Your task to perform on an android device: turn off data saver in the chrome app Image 0: 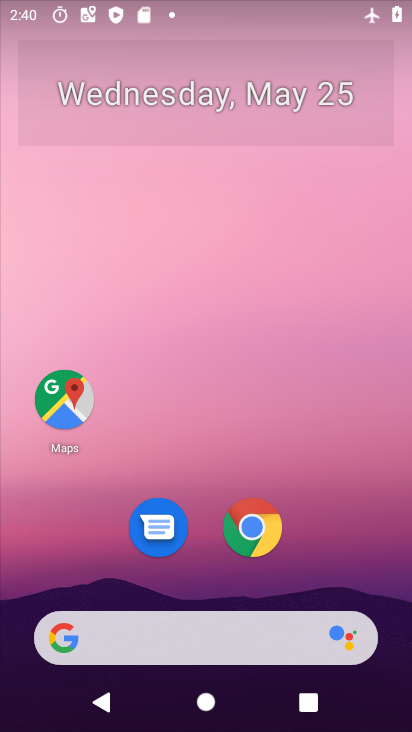
Step 0: drag from (202, 595) to (308, 238)
Your task to perform on an android device: turn off data saver in the chrome app Image 1: 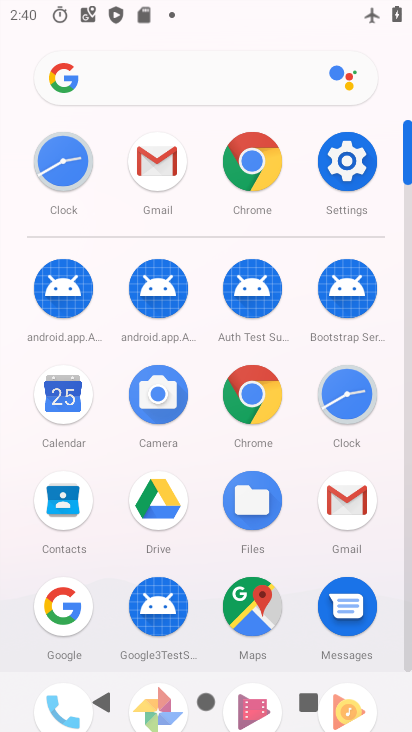
Step 1: click (249, 393)
Your task to perform on an android device: turn off data saver in the chrome app Image 2: 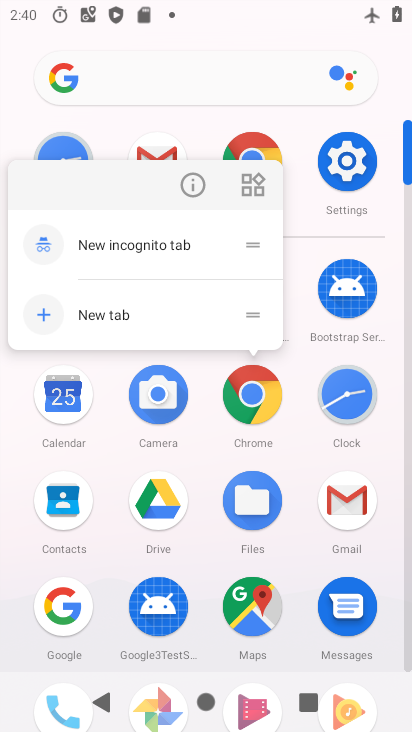
Step 2: click (193, 180)
Your task to perform on an android device: turn off data saver in the chrome app Image 3: 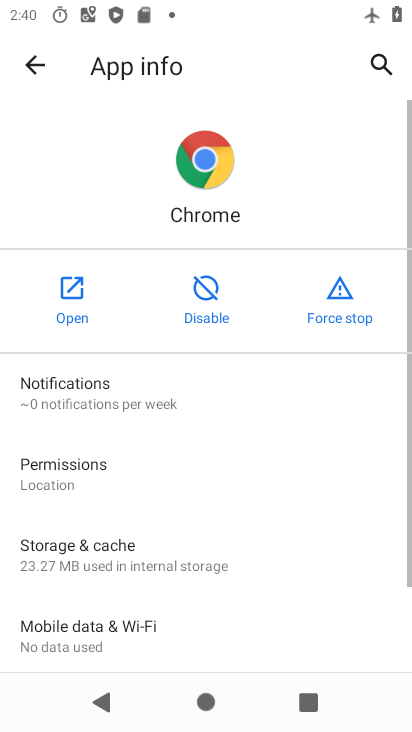
Step 3: click (65, 296)
Your task to perform on an android device: turn off data saver in the chrome app Image 4: 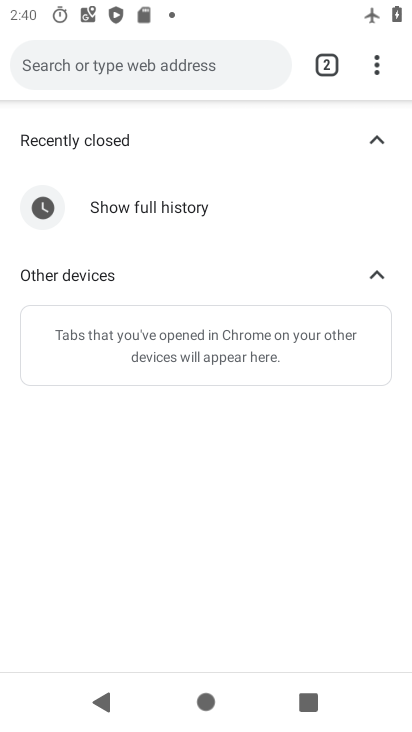
Step 4: click (376, 73)
Your task to perform on an android device: turn off data saver in the chrome app Image 5: 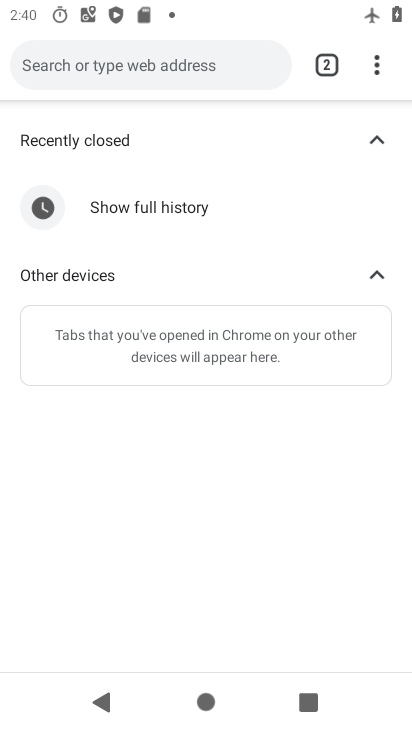
Step 5: drag from (376, 73) to (201, 557)
Your task to perform on an android device: turn off data saver in the chrome app Image 6: 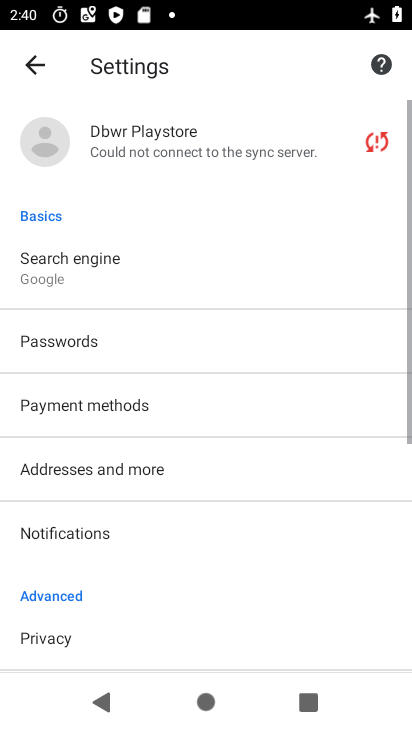
Step 6: drag from (180, 595) to (375, 76)
Your task to perform on an android device: turn off data saver in the chrome app Image 7: 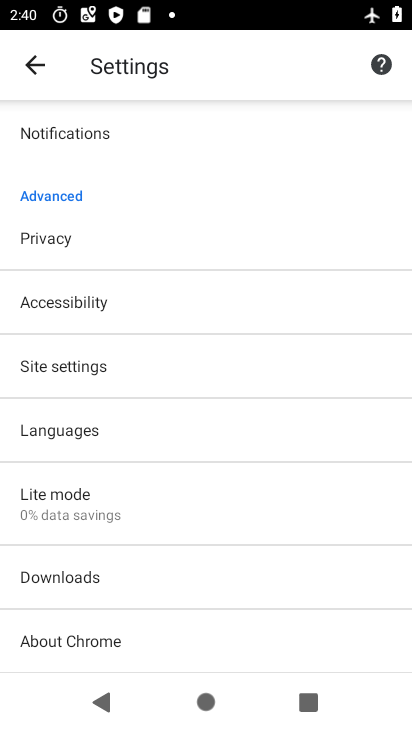
Step 7: click (114, 508)
Your task to perform on an android device: turn off data saver in the chrome app Image 8: 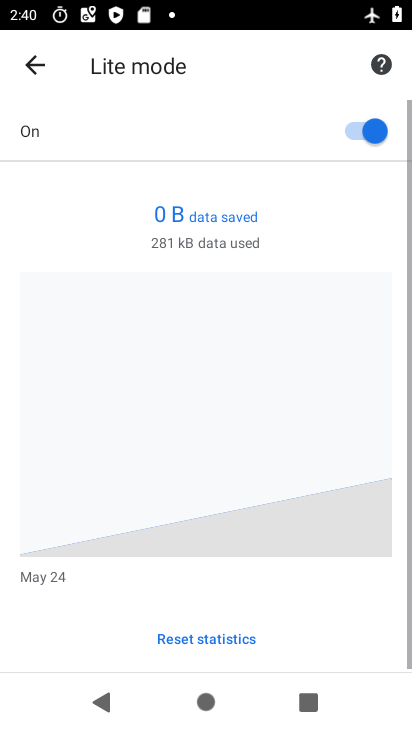
Step 8: click (360, 131)
Your task to perform on an android device: turn off data saver in the chrome app Image 9: 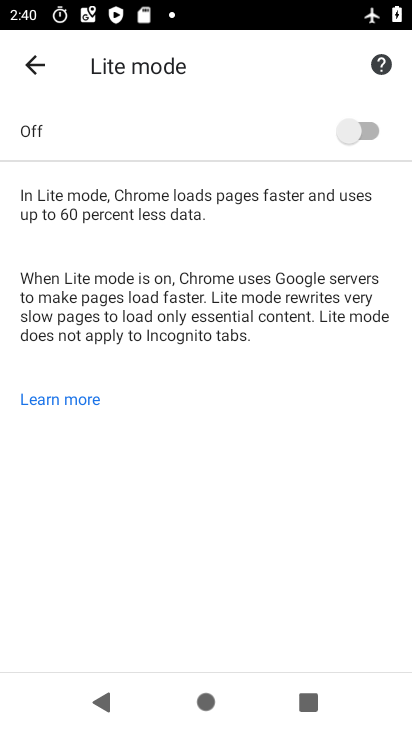
Step 9: task complete